Your task to perform on an android device: toggle show notifications on the lock screen Image 0: 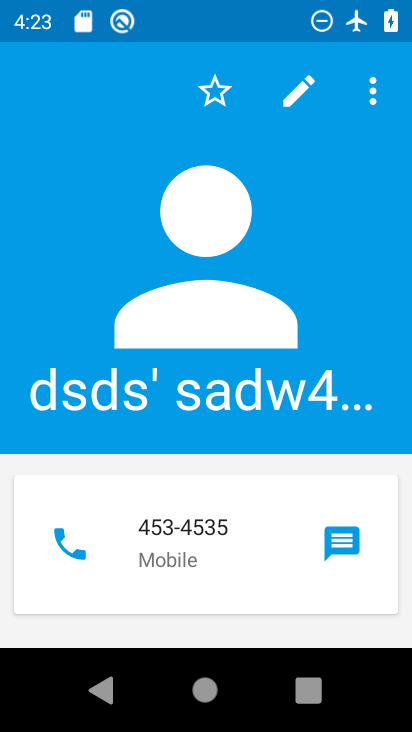
Step 0: press home button
Your task to perform on an android device: toggle show notifications on the lock screen Image 1: 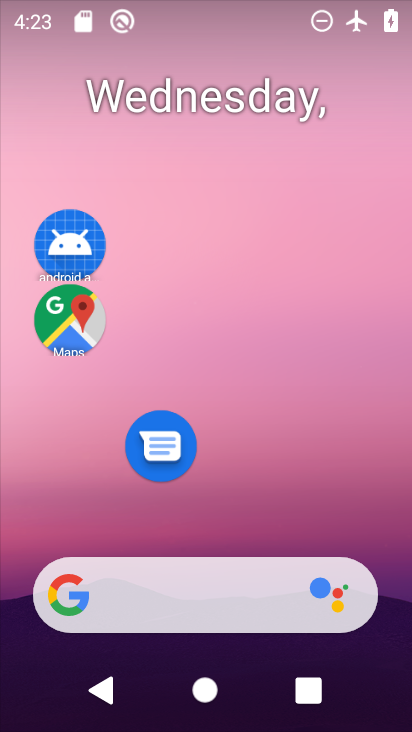
Step 1: drag from (285, 494) to (271, 206)
Your task to perform on an android device: toggle show notifications on the lock screen Image 2: 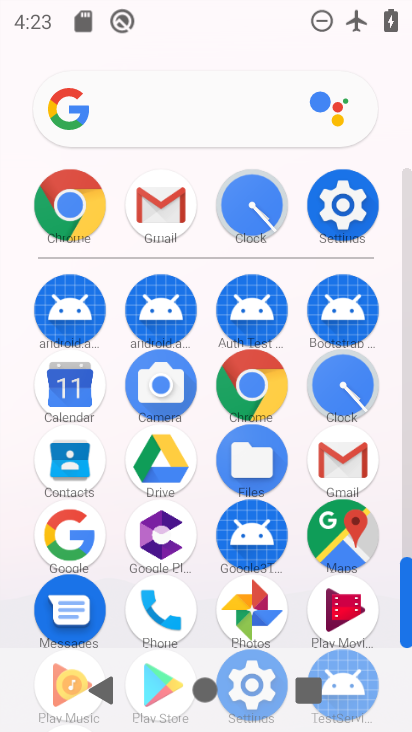
Step 2: click (352, 197)
Your task to perform on an android device: toggle show notifications on the lock screen Image 3: 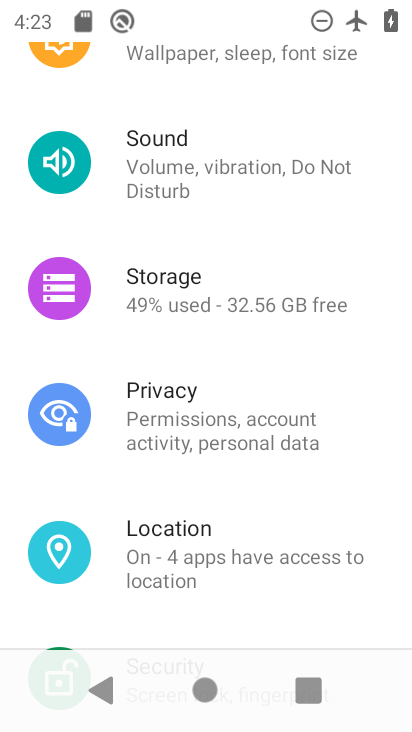
Step 3: drag from (233, 559) to (232, 509)
Your task to perform on an android device: toggle show notifications on the lock screen Image 4: 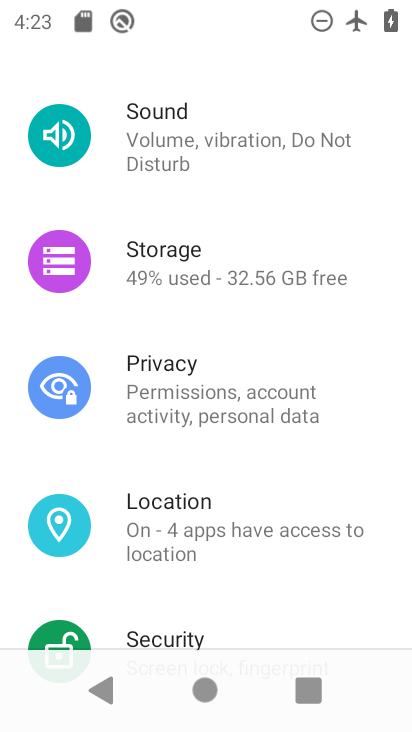
Step 4: click (232, 509)
Your task to perform on an android device: toggle show notifications on the lock screen Image 5: 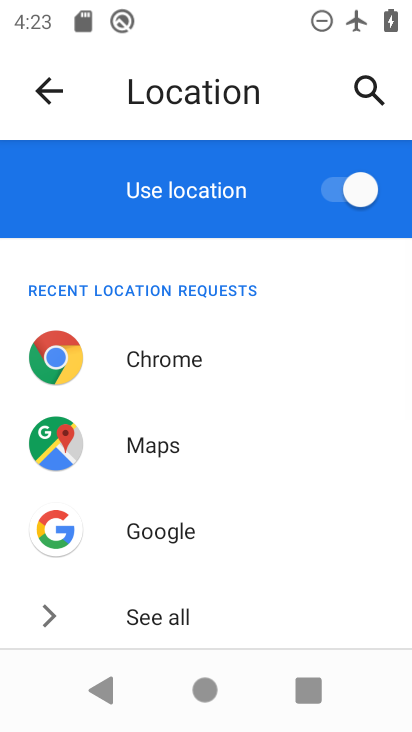
Step 5: click (42, 75)
Your task to perform on an android device: toggle show notifications on the lock screen Image 6: 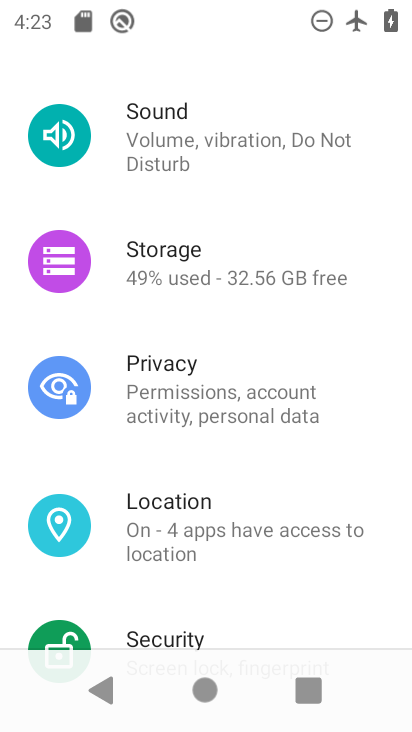
Step 6: drag from (161, 297) to (202, 609)
Your task to perform on an android device: toggle show notifications on the lock screen Image 7: 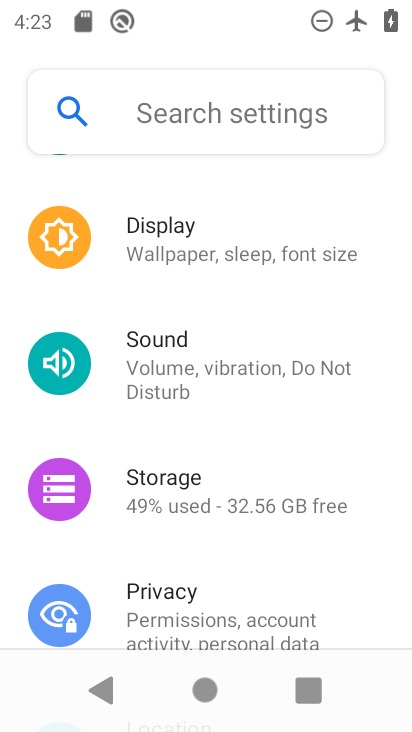
Step 7: drag from (239, 286) to (244, 567)
Your task to perform on an android device: toggle show notifications on the lock screen Image 8: 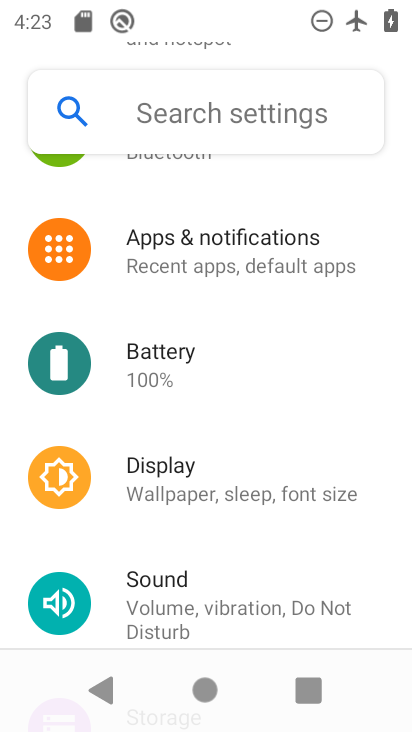
Step 8: click (253, 283)
Your task to perform on an android device: toggle show notifications on the lock screen Image 9: 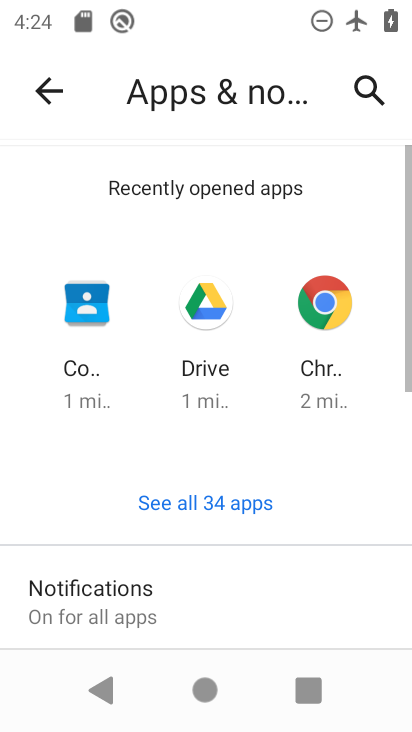
Step 9: click (222, 576)
Your task to perform on an android device: toggle show notifications on the lock screen Image 10: 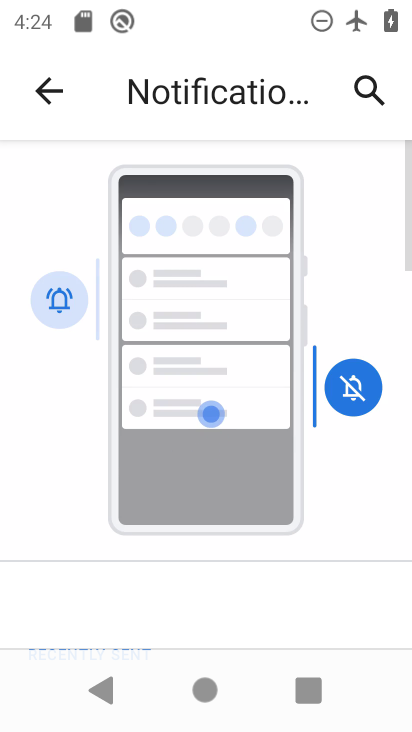
Step 10: drag from (222, 576) to (222, 275)
Your task to perform on an android device: toggle show notifications on the lock screen Image 11: 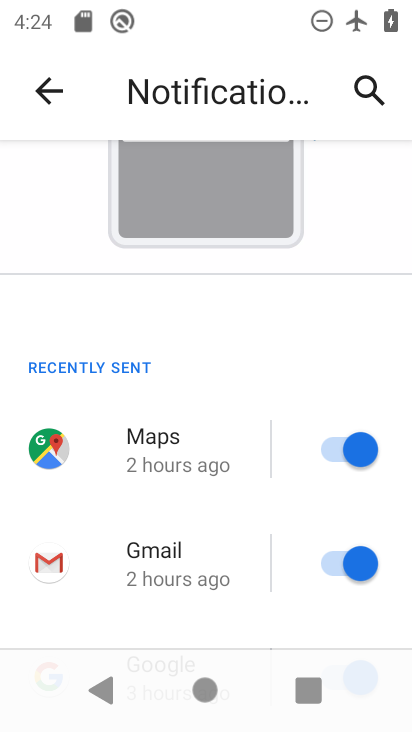
Step 11: drag from (197, 548) to (225, 139)
Your task to perform on an android device: toggle show notifications on the lock screen Image 12: 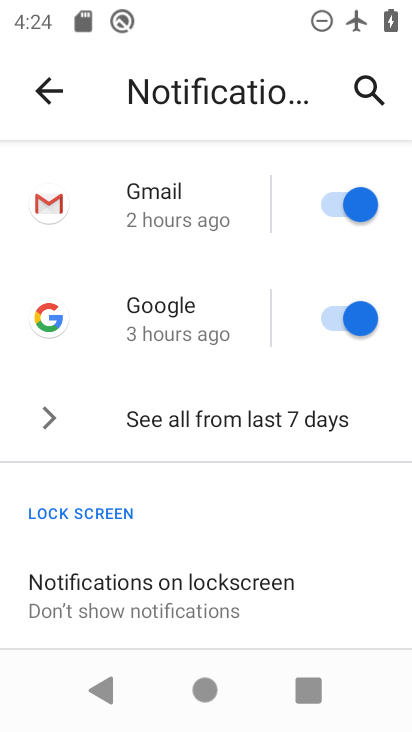
Step 12: drag from (190, 511) to (196, 229)
Your task to perform on an android device: toggle show notifications on the lock screen Image 13: 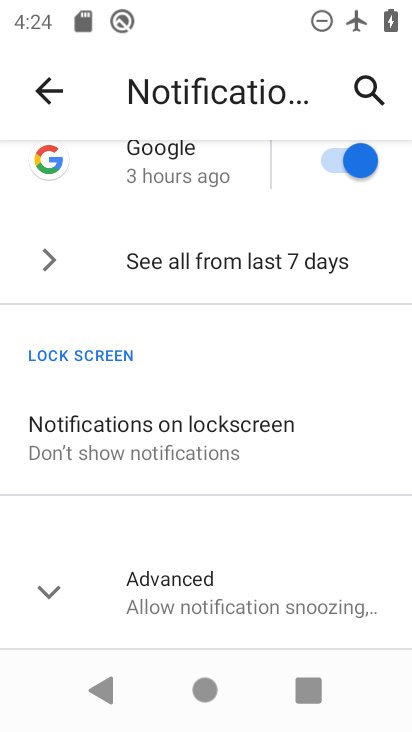
Step 13: click (178, 614)
Your task to perform on an android device: toggle show notifications on the lock screen Image 14: 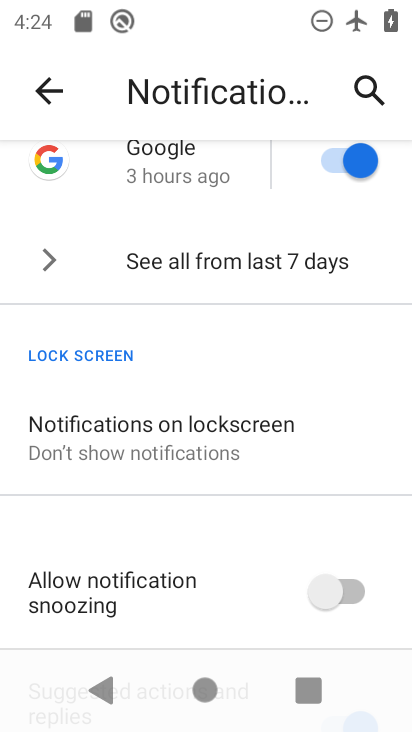
Step 14: click (244, 470)
Your task to perform on an android device: toggle show notifications on the lock screen Image 15: 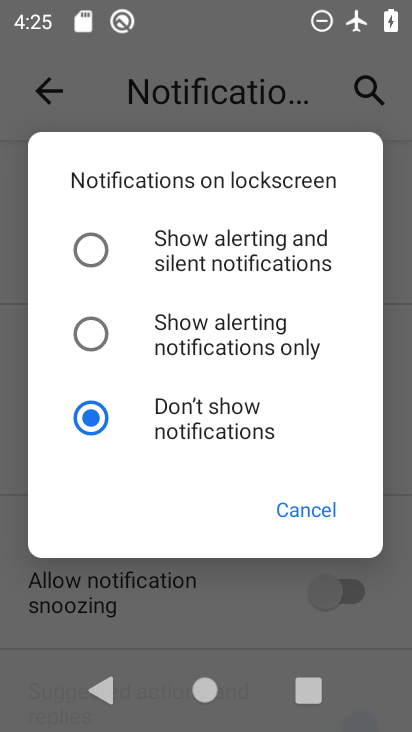
Step 15: click (224, 350)
Your task to perform on an android device: toggle show notifications on the lock screen Image 16: 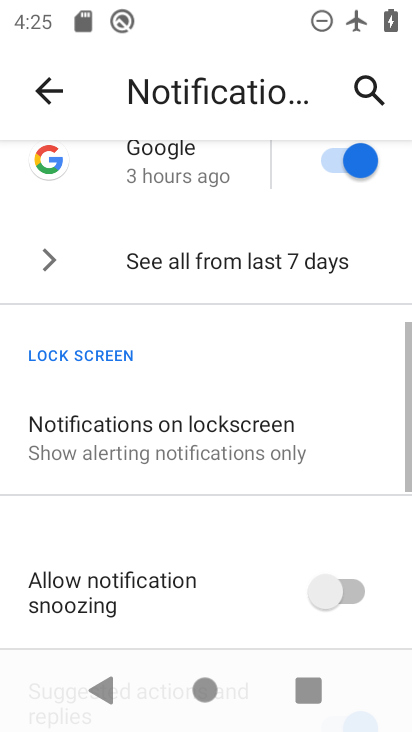
Step 16: task complete